Your task to perform on an android device: toggle sleep mode Image 0: 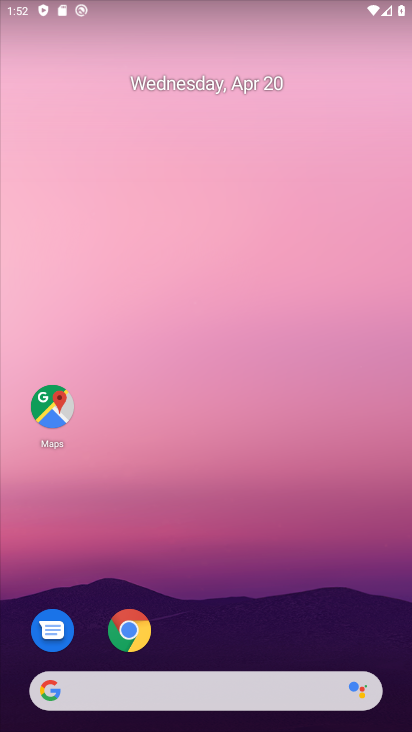
Step 0: drag from (284, 607) to (264, 188)
Your task to perform on an android device: toggle sleep mode Image 1: 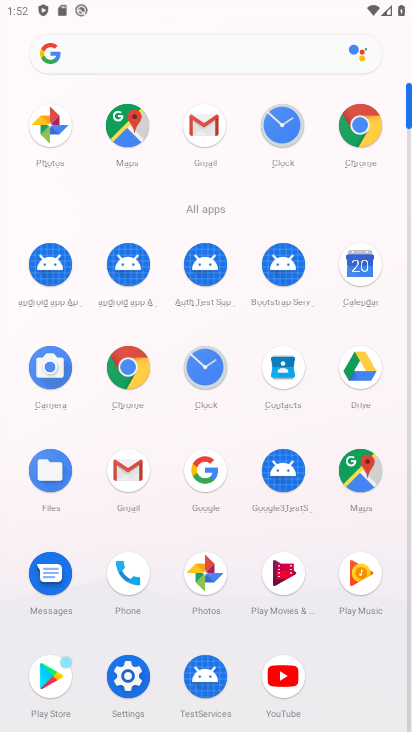
Step 1: click (118, 694)
Your task to perform on an android device: toggle sleep mode Image 2: 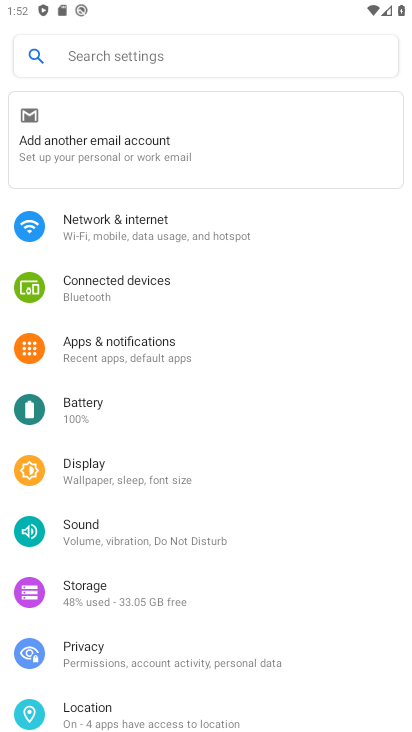
Step 2: click (170, 480)
Your task to perform on an android device: toggle sleep mode Image 3: 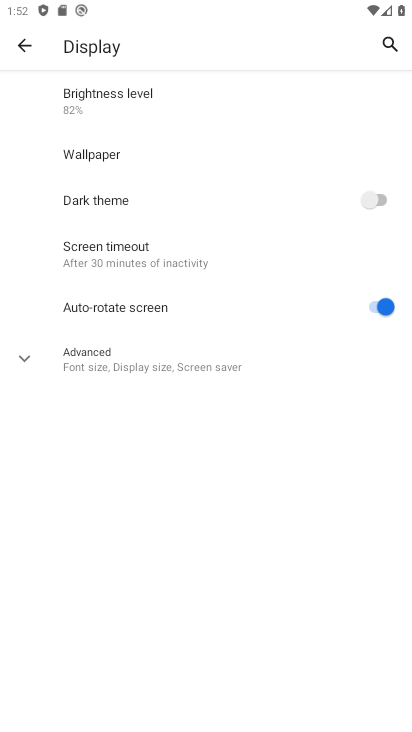
Step 3: task complete